Your task to perform on an android device: Open calendar and show me the first week of next month Image 0: 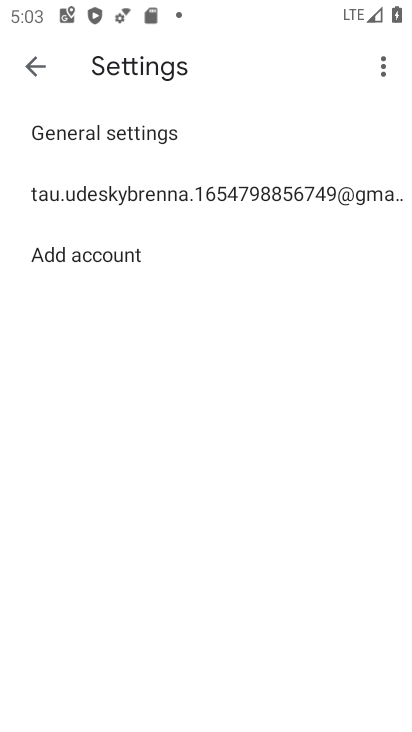
Step 0: press home button
Your task to perform on an android device: Open calendar and show me the first week of next month Image 1: 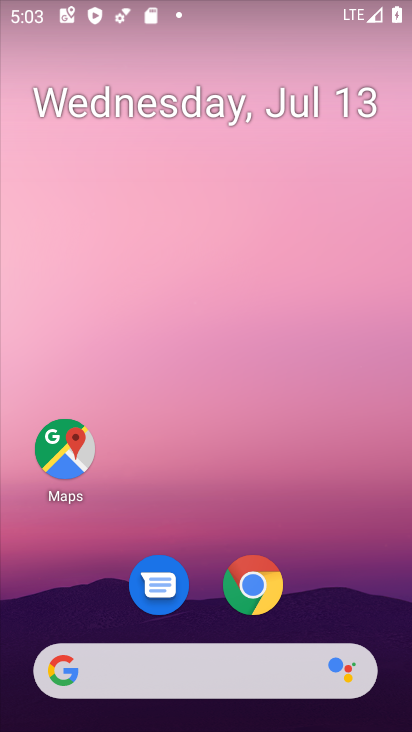
Step 1: drag from (331, 585) to (337, 36)
Your task to perform on an android device: Open calendar and show me the first week of next month Image 2: 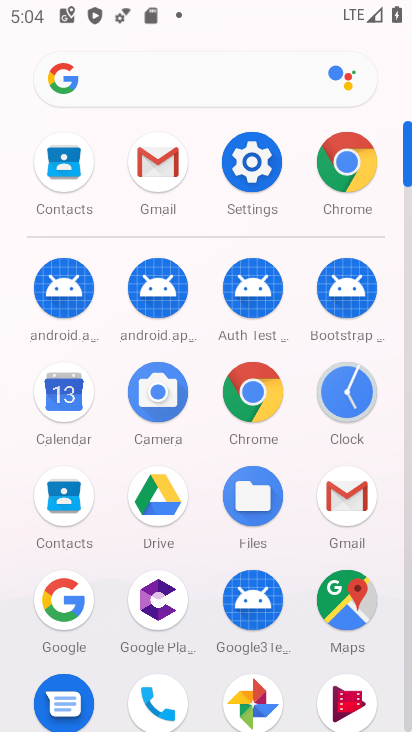
Step 2: click (56, 391)
Your task to perform on an android device: Open calendar and show me the first week of next month Image 3: 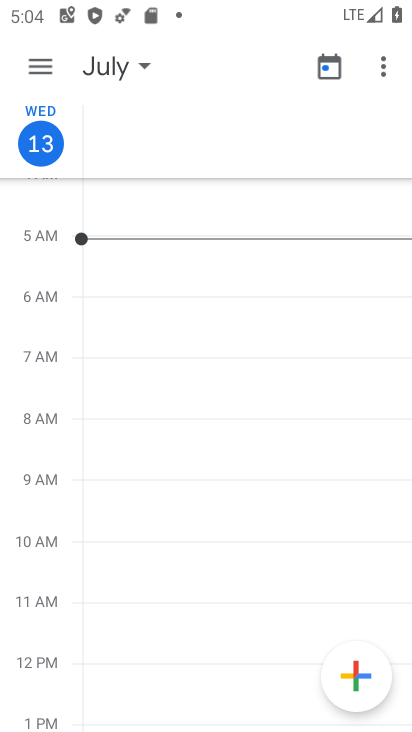
Step 3: click (39, 71)
Your task to perform on an android device: Open calendar and show me the first week of next month Image 4: 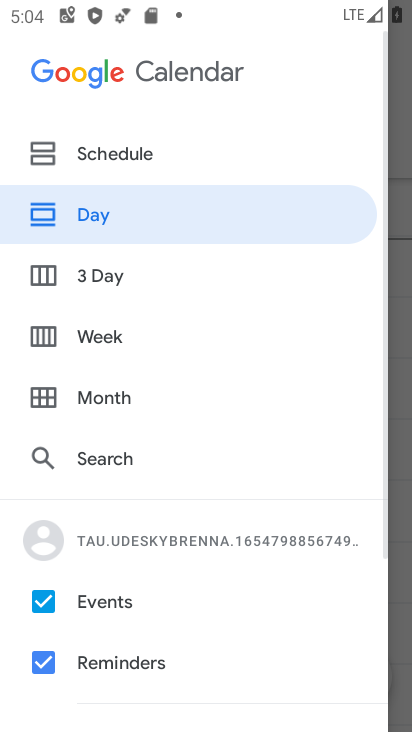
Step 4: click (95, 334)
Your task to perform on an android device: Open calendar and show me the first week of next month Image 5: 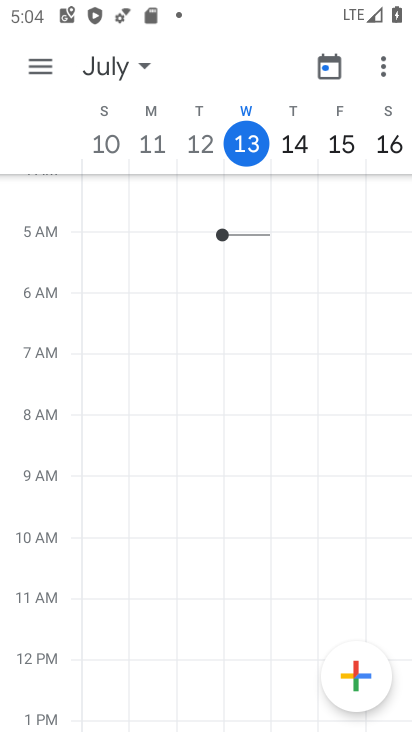
Step 5: task complete